Your task to perform on an android device: create a new album in the google photos Image 0: 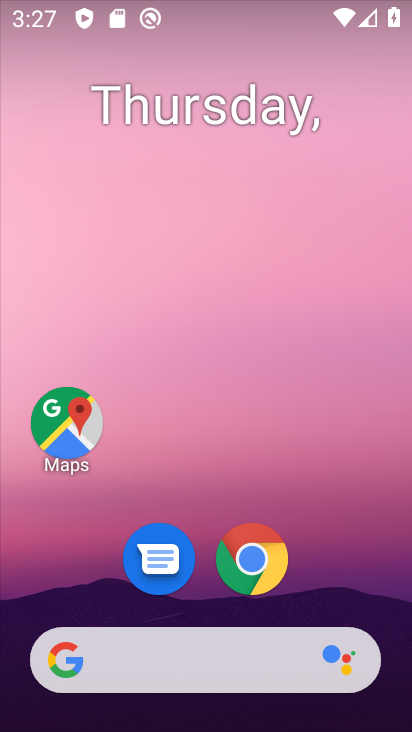
Step 0: drag from (323, 571) to (310, 156)
Your task to perform on an android device: create a new album in the google photos Image 1: 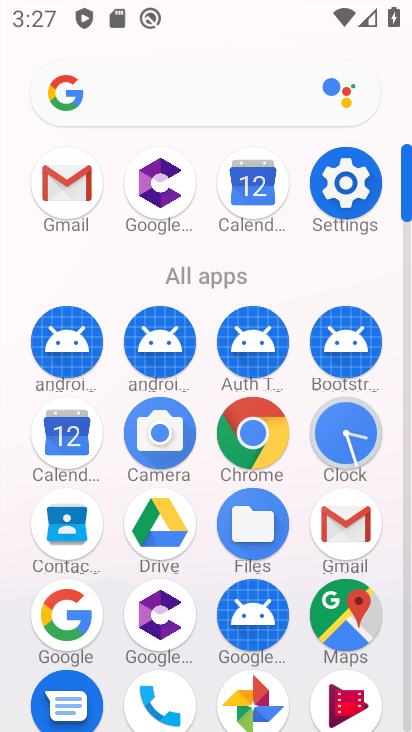
Step 1: click (266, 690)
Your task to perform on an android device: create a new album in the google photos Image 2: 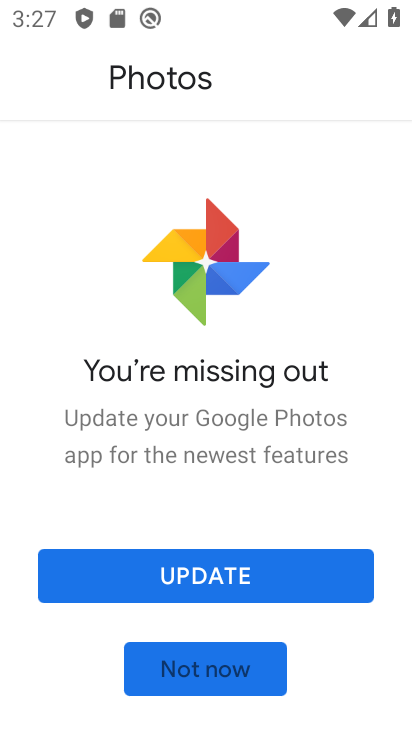
Step 2: click (249, 582)
Your task to perform on an android device: create a new album in the google photos Image 3: 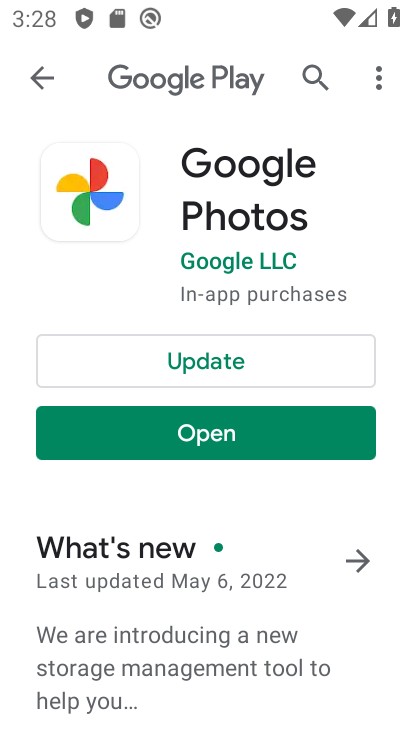
Step 3: click (269, 361)
Your task to perform on an android device: create a new album in the google photos Image 4: 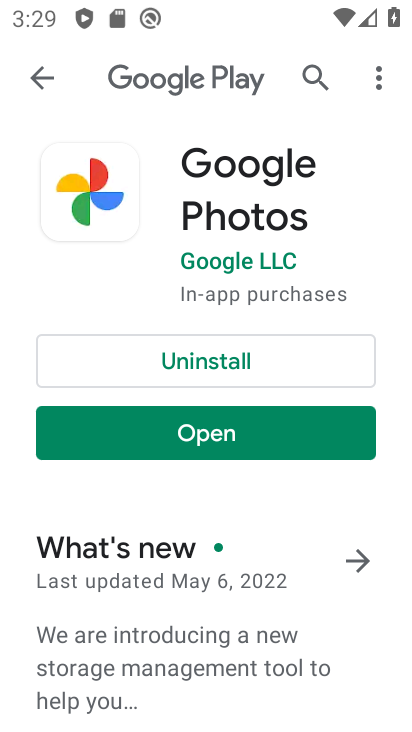
Step 4: click (236, 433)
Your task to perform on an android device: create a new album in the google photos Image 5: 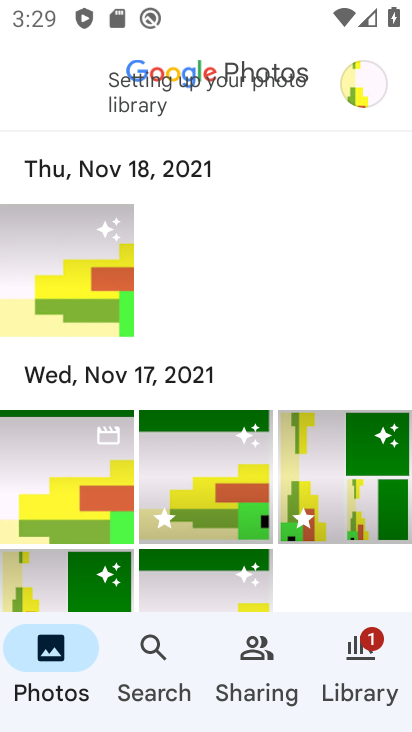
Step 5: click (369, 85)
Your task to perform on an android device: create a new album in the google photos Image 6: 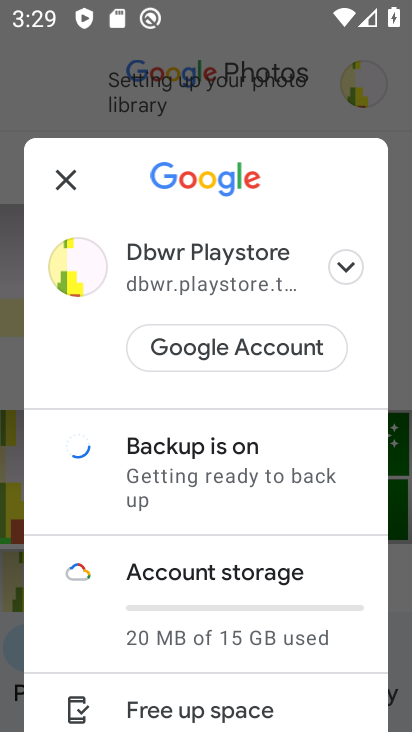
Step 6: click (293, 116)
Your task to perform on an android device: create a new album in the google photos Image 7: 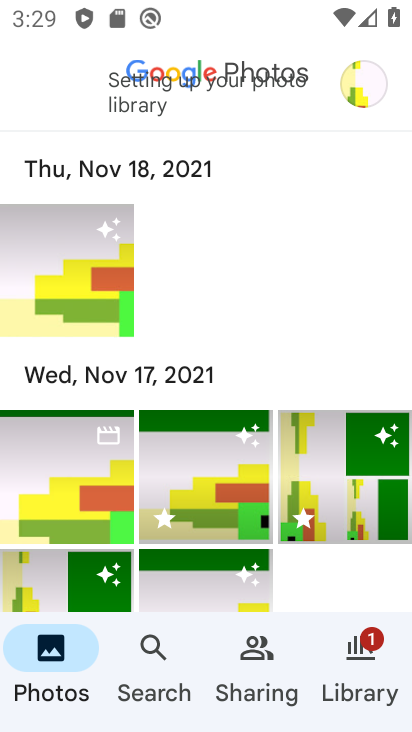
Step 7: click (360, 662)
Your task to perform on an android device: create a new album in the google photos Image 8: 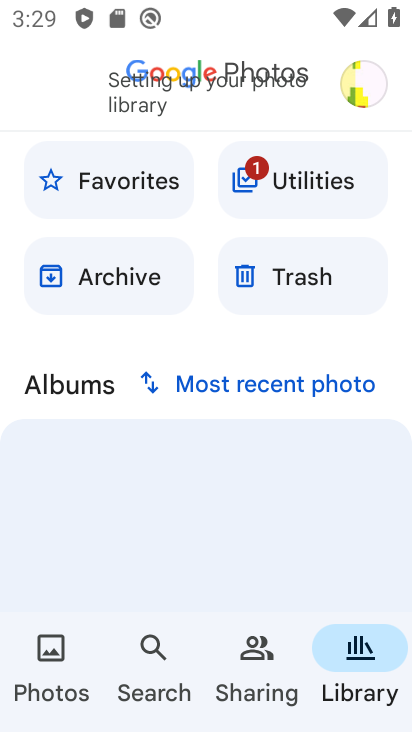
Step 8: drag from (178, 511) to (190, 267)
Your task to perform on an android device: create a new album in the google photos Image 9: 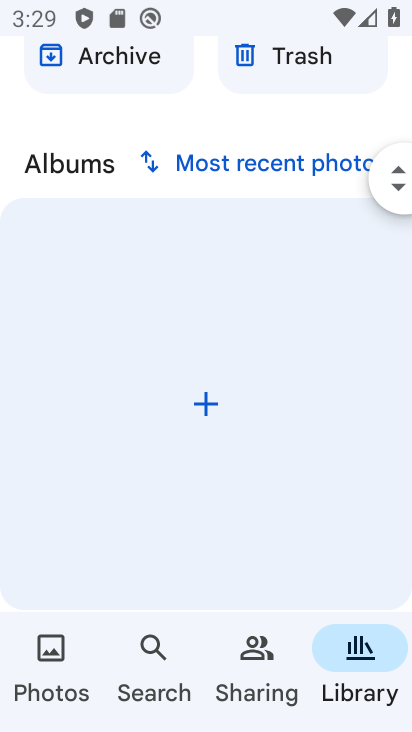
Step 9: click (207, 402)
Your task to perform on an android device: create a new album in the google photos Image 10: 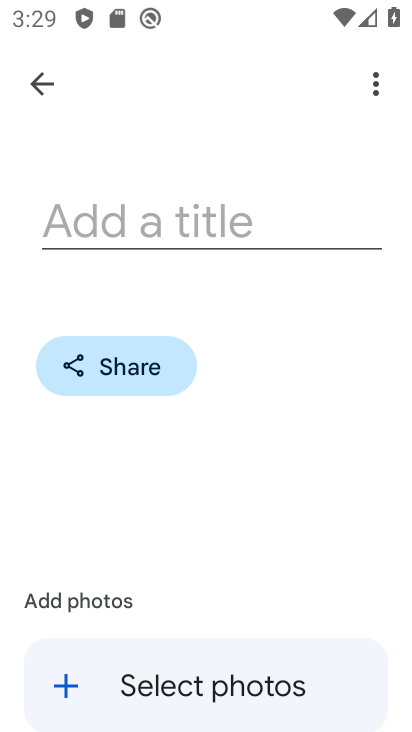
Step 10: click (163, 672)
Your task to perform on an android device: create a new album in the google photos Image 11: 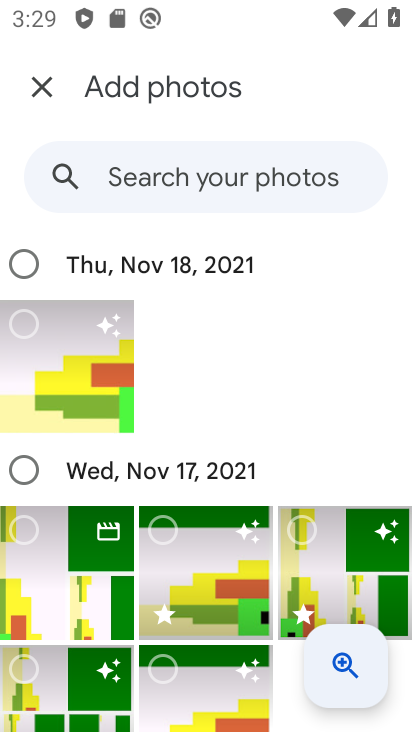
Step 11: click (93, 385)
Your task to perform on an android device: create a new album in the google photos Image 12: 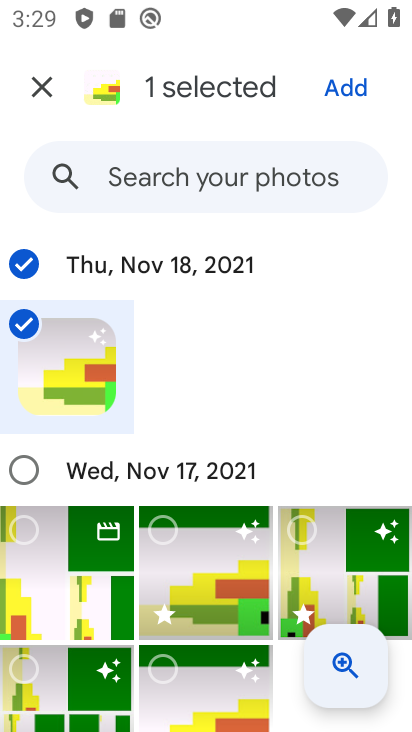
Step 12: click (352, 94)
Your task to perform on an android device: create a new album in the google photos Image 13: 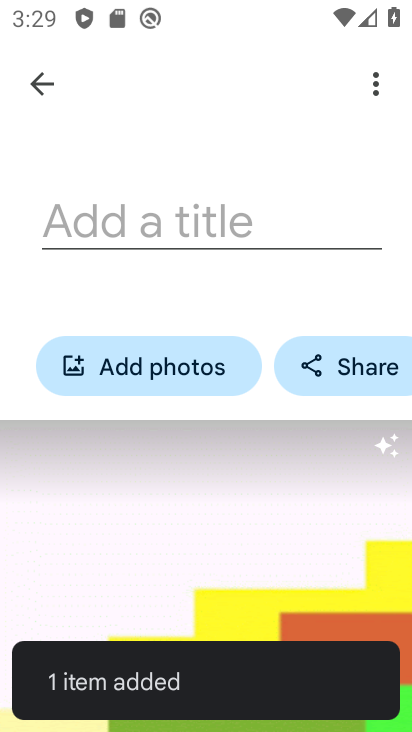
Step 13: click (151, 234)
Your task to perform on an android device: create a new album in the google photos Image 14: 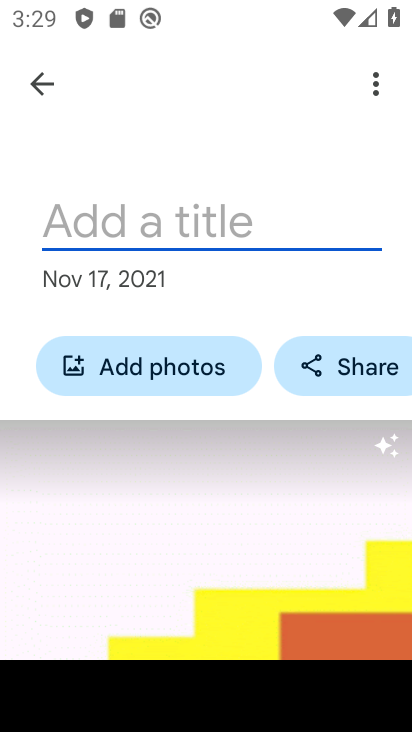
Step 14: type "t"
Your task to perform on an android device: create a new album in the google photos Image 15: 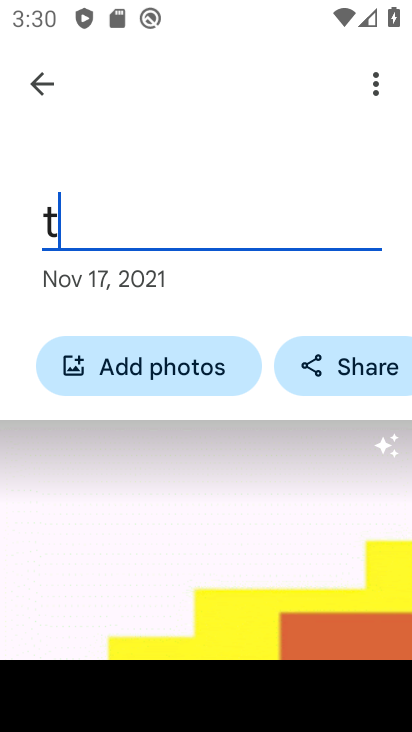
Step 15: drag from (292, 517) to (364, 33)
Your task to perform on an android device: create a new album in the google photos Image 16: 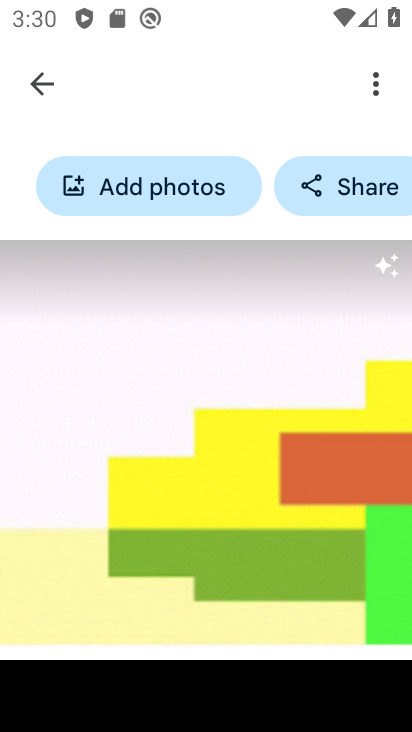
Step 16: click (383, 83)
Your task to perform on an android device: create a new album in the google photos Image 17: 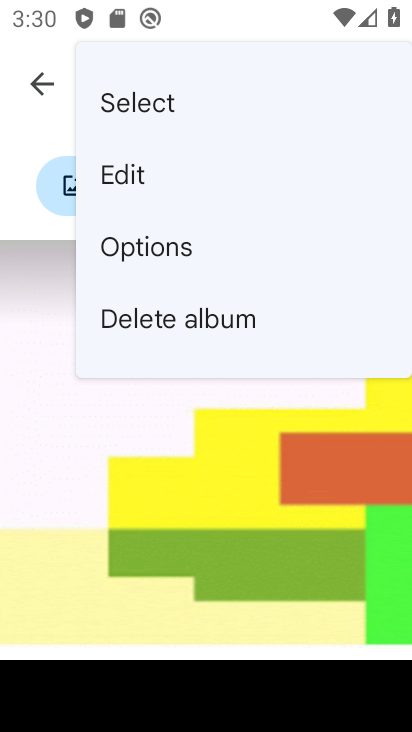
Step 17: click (218, 454)
Your task to perform on an android device: create a new album in the google photos Image 18: 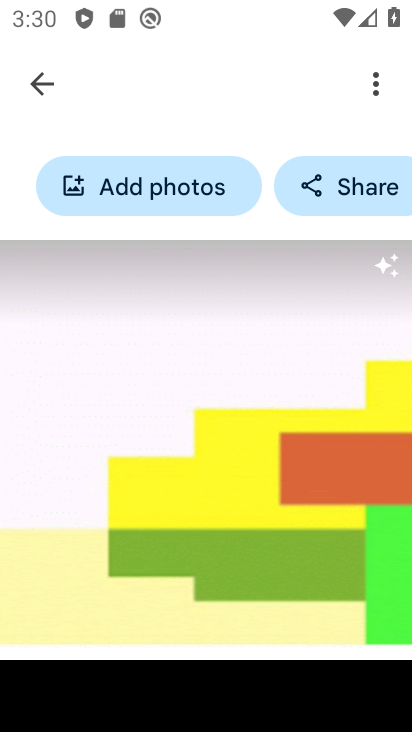
Step 18: task complete